Your task to perform on an android device: toggle translation in the chrome app Image 0: 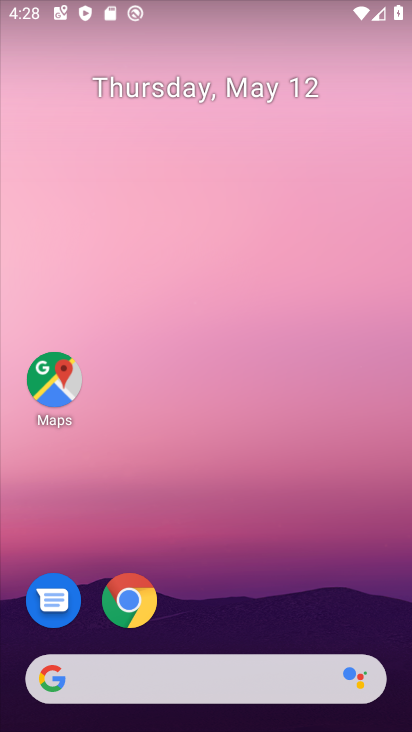
Step 0: drag from (188, 637) to (273, 122)
Your task to perform on an android device: toggle translation in the chrome app Image 1: 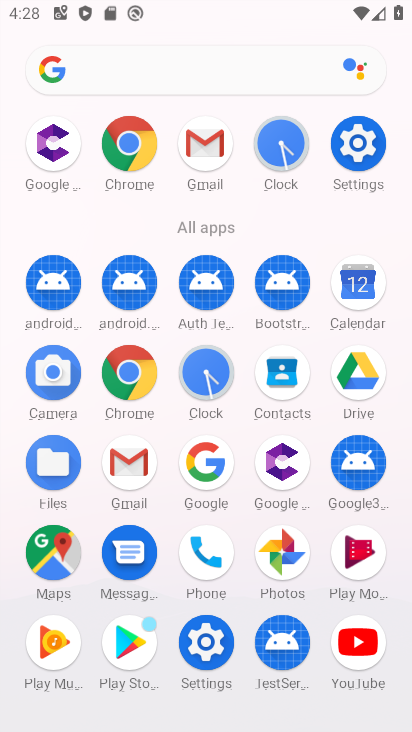
Step 1: click (124, 371)
Your task to perform on an android device: toggle translation in the chrome app Image 2: 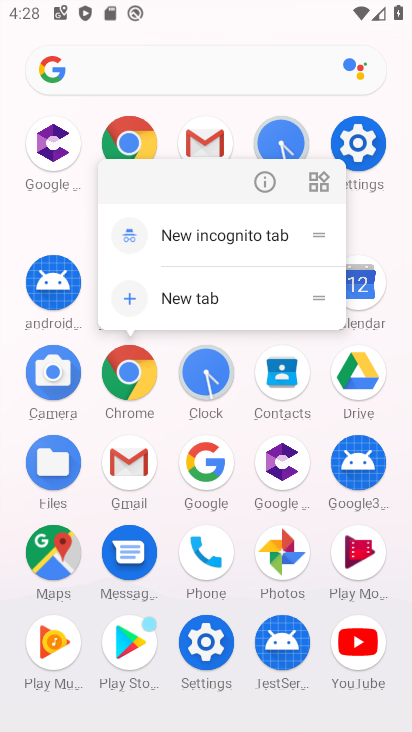
Step 2: click (274, 180)
Your task to perform on an android device: toggle translation in the chrome app Image 3: 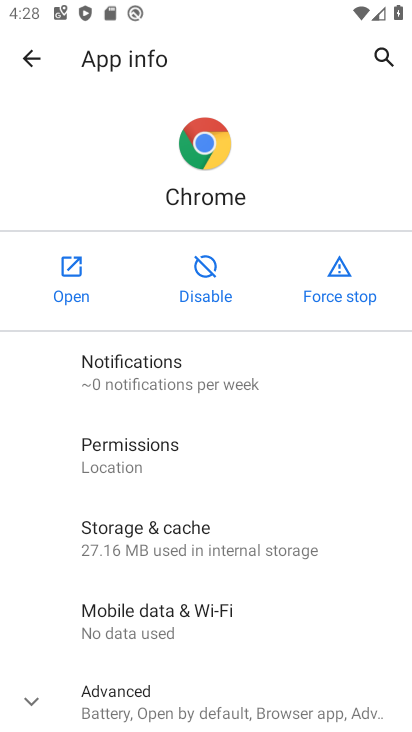
Step 3: click (69, 284)
Your task to perform on an android device: toggle translation in the chrome app Image 4: 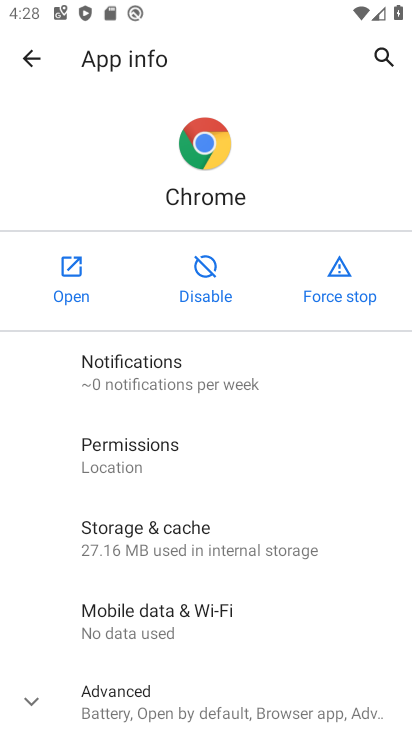
Step 4: click (69, 284)
Your task to perform on an android device: toggle translation in the chrome app Image 5: 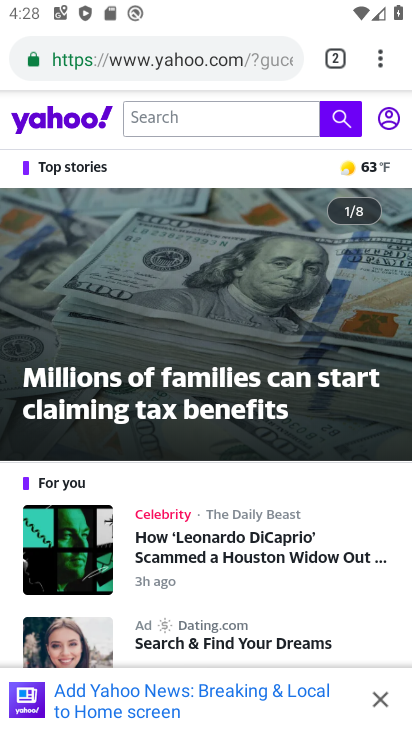
Step 5: drag from (267, 542) to (348, 15)
Your task to perform on an android device: toggle translation in the chrome app Image 6: 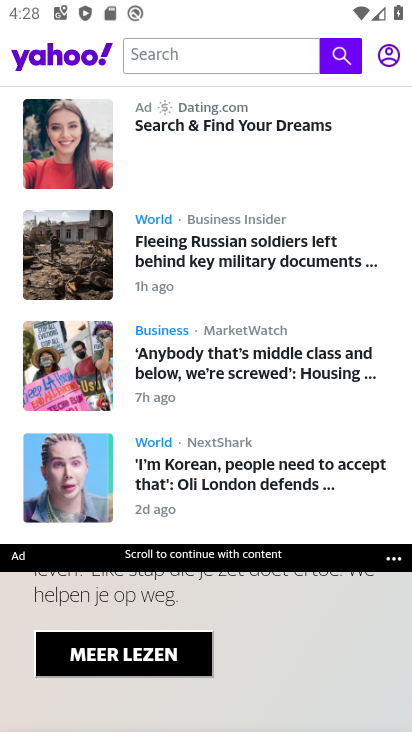
Step 6: drag from (191, 263) to (279, 682)
Your task to perform on an android device: toggle translation in the chrome app Image 7: 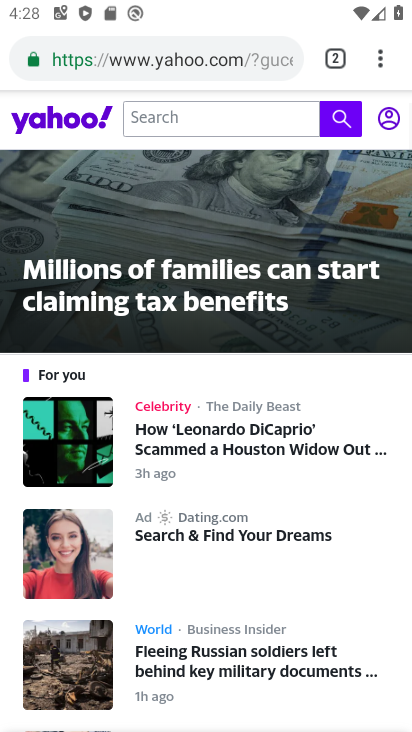
Step 7: drag from (385, 59) to (223, 632)
Your task to perform on an android device: toggle translation in the chrome app Image 8: 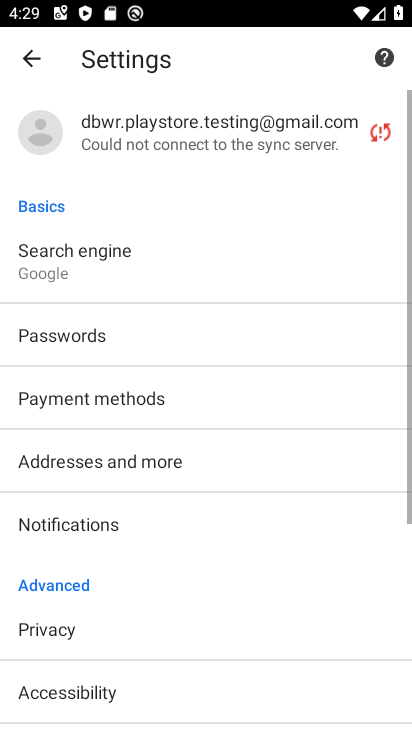
Step 8: drag from (215, 625) to (205, 286)
Your task to perform on an android device: toggle translation in the chrome app Image 9: 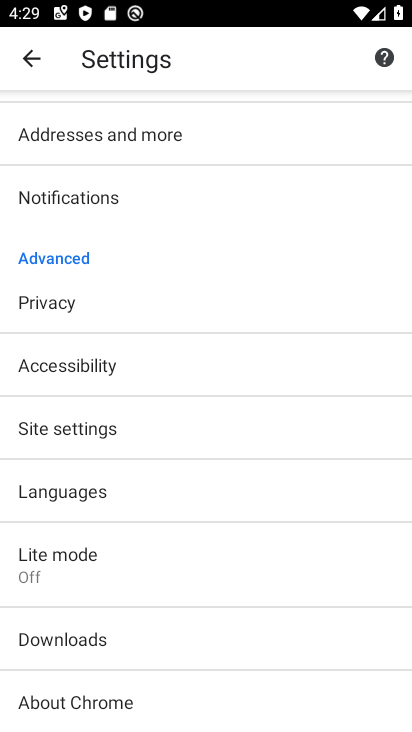
Step 9: click (85, 486)
Your task to perform on an android device: toggle translation in the chrome app Image 10: 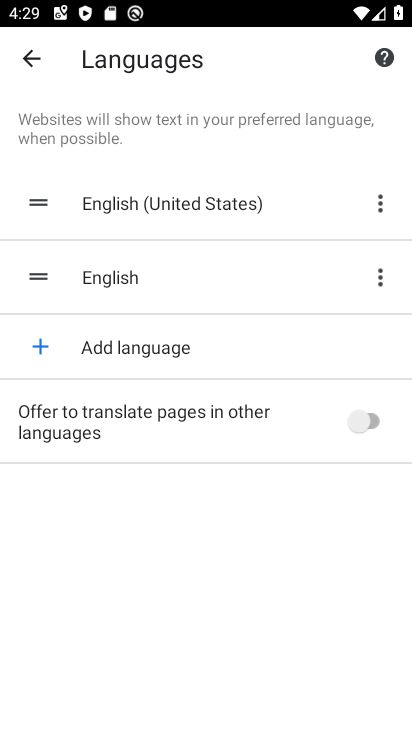
Step 10: click (351, 429)
Your task to perform on an android device: toggle translation in the chrome app Image 11: 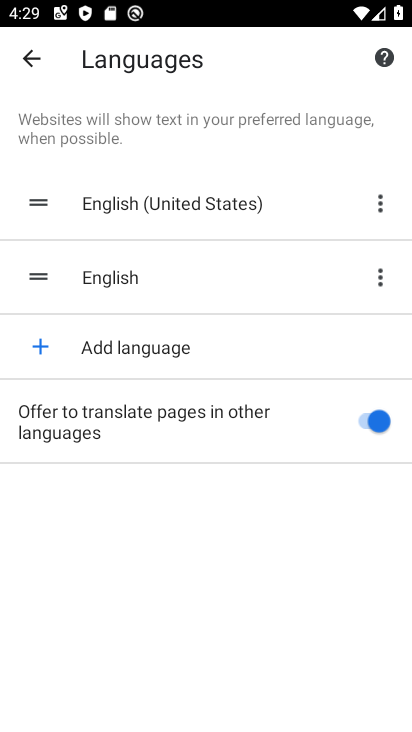
Step 11: task complete